Your task to perform on an android device: What's the weather today? Image 0: 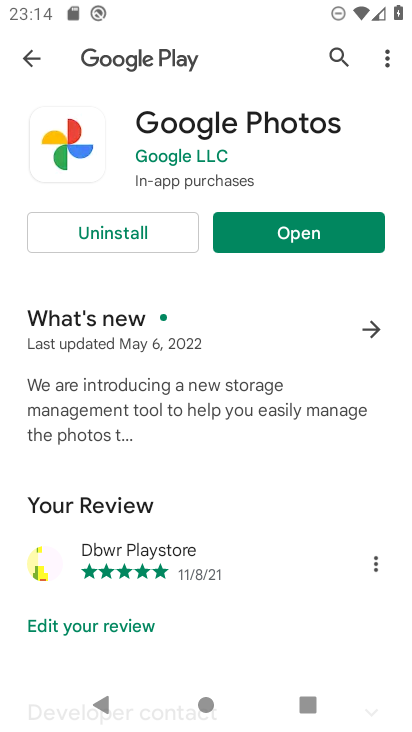
Step 0: press home button
Your task to perform on an android device: What's the weather today? Image 1: 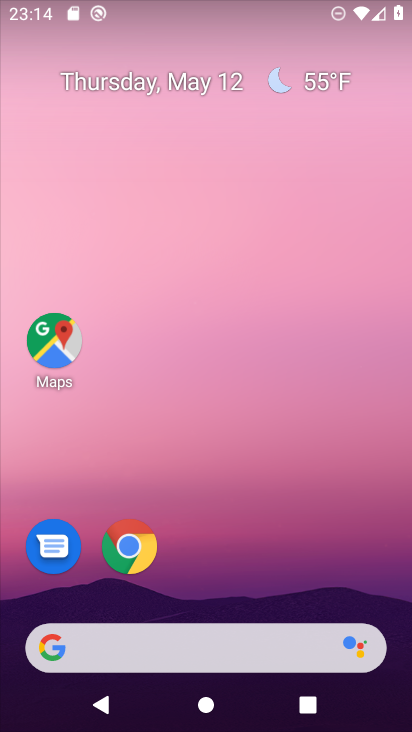
Step 1: click (135, 549)
Your task to perform on an android device: What's the weather today? Image 2: 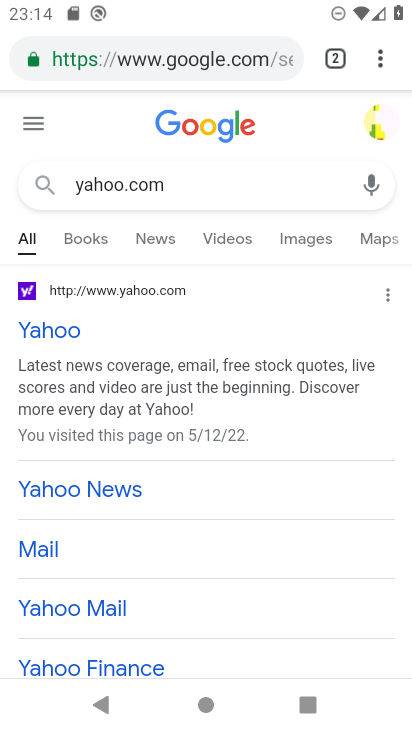
Step 2: click (138, 69)
Your task to perform on an android device: What's the weather today? Image 3: 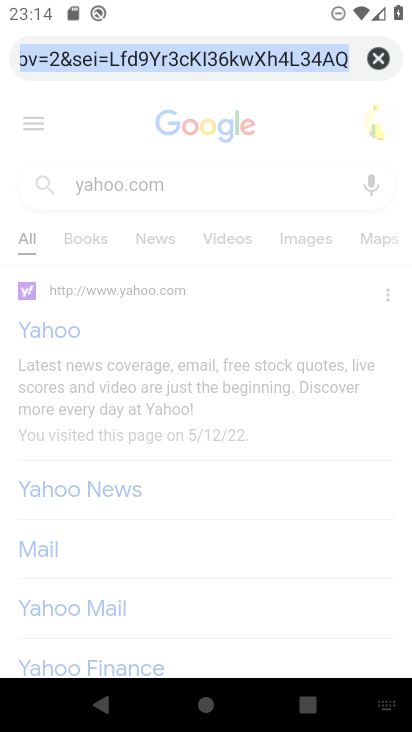
Step 3: type "weather"
Your task to perform on an android device: What's the weather today? Image 4: 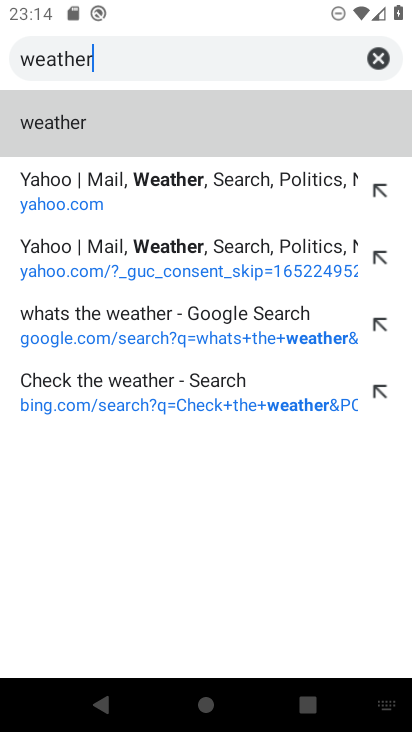
Step 4: click (104, 123)
Your task to perform on an android device: What's the weather today? Image 5: 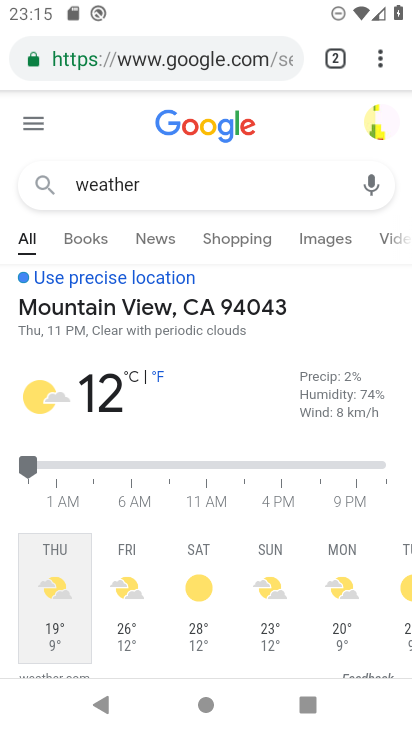
Step 5: task complete